Your task to perform on an android device: open a new tab in the chrome app Image 0: 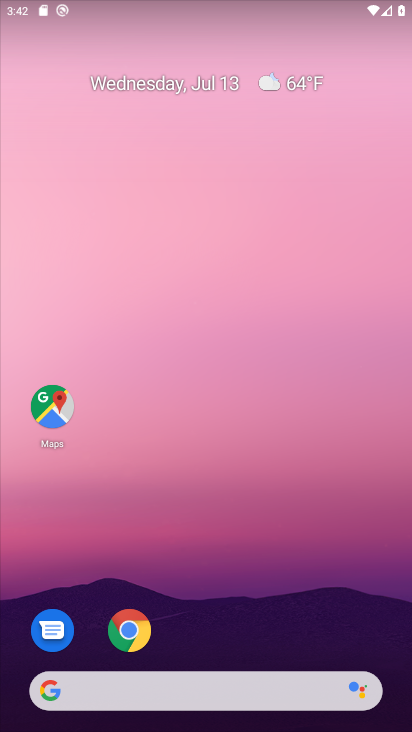
Step 0: click (128, 619)
Your task to perform on an android device: open a new tab in the chrome app Image 1: 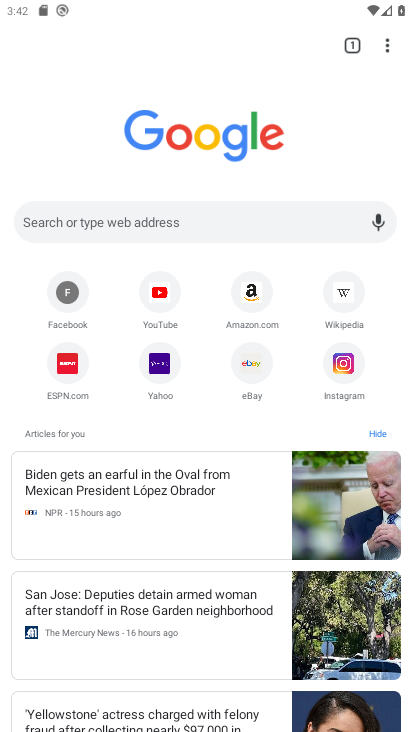
Step 1: click (344, 49)
Your task to perform on an android device: open a new tab in the chrome app Image 2: 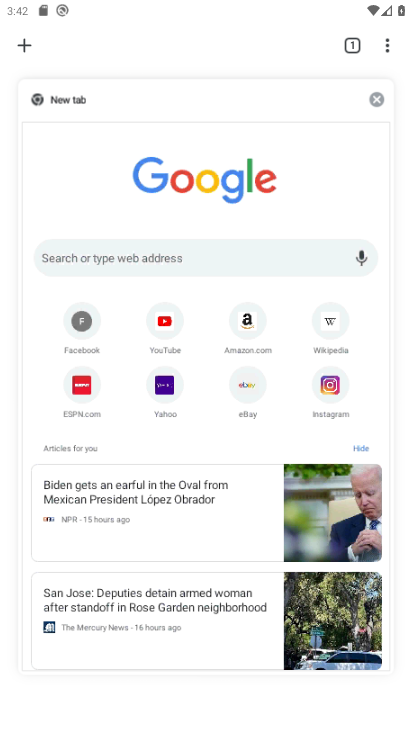
Step 2: click (23, 32)
Your task to perform on an android device: open a new tab in the chrome app Image 3: 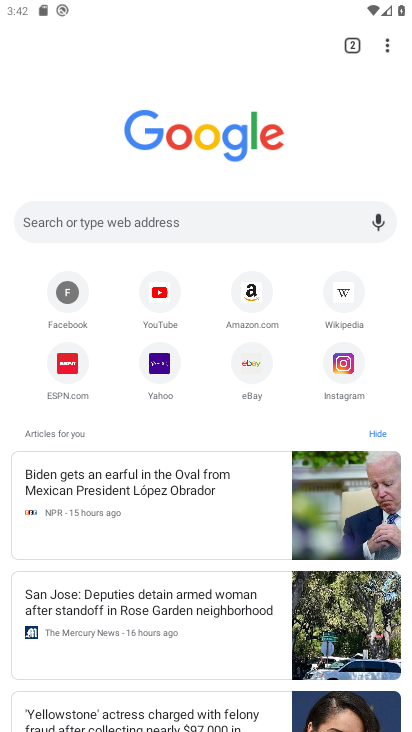
Step 3: task complete